Your task to perform on an android device: Is it going to rain today? Image 0: 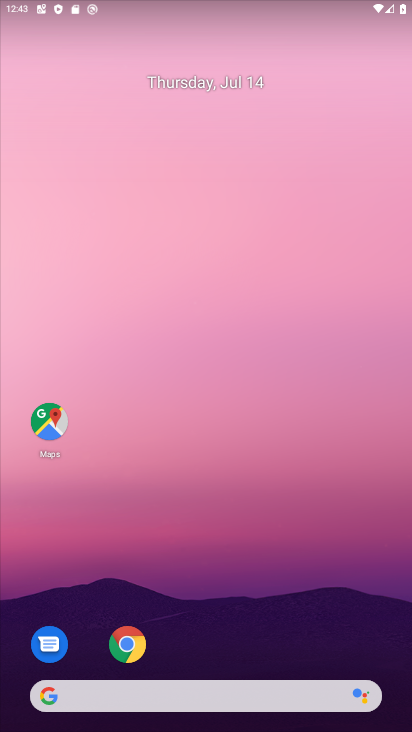
Step 0: drag from (269, 655) to (248, 151)
Your task to perform on an android device: Is it going to rain today? Image 1: 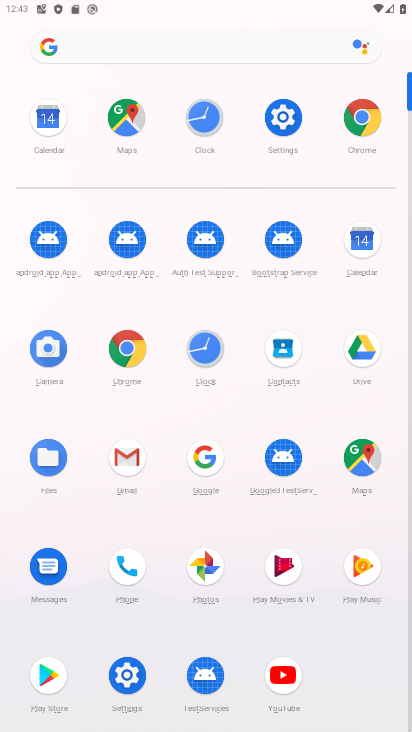
Step 1: click (134, 359)
Your task to perform on an android device: Is it going to rain today? Image 2: 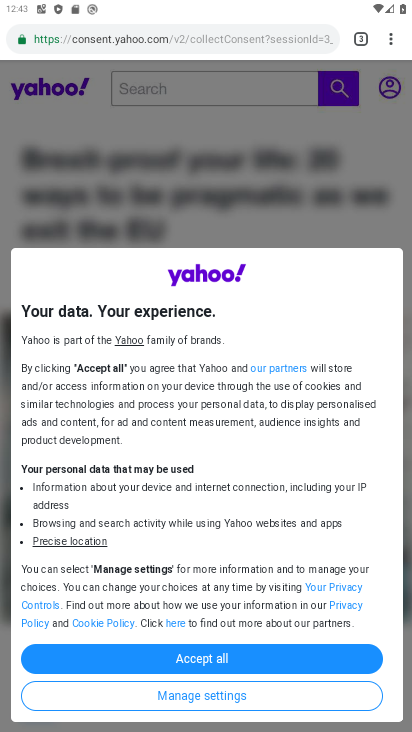
Step 2: click (152, 42)
Your task to perform on an android device: Is it going to rain today? Image 3: 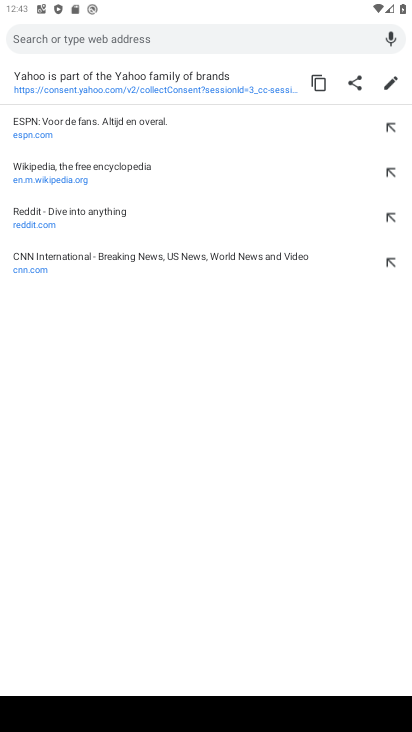
Step 3: type "going to rain today"
Your task to perform on an android device: Is it going to rain today? Image 4: 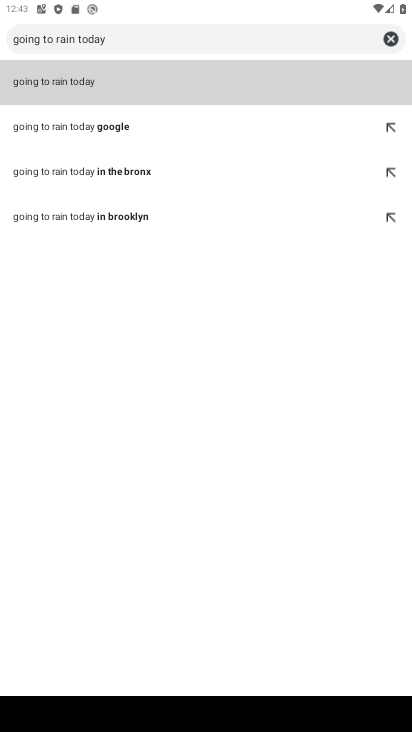
Step 4: click (85, 80)
Your task to perform on an android device: Is it going to rain today? Image 5: 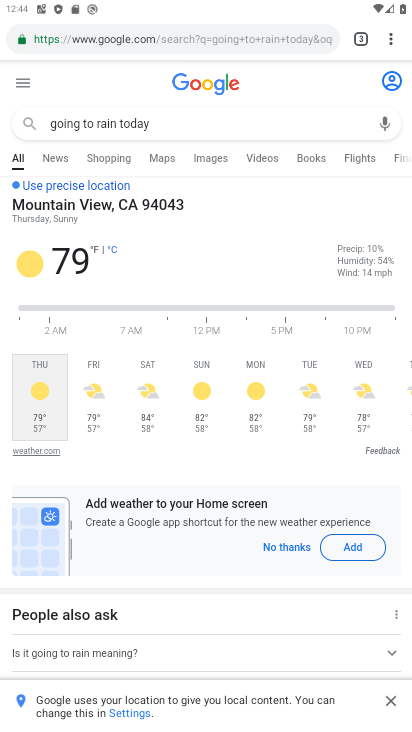
Step 5: task complete